Your task to perform on an android device: add a label to a message in the gmail app Image 0: 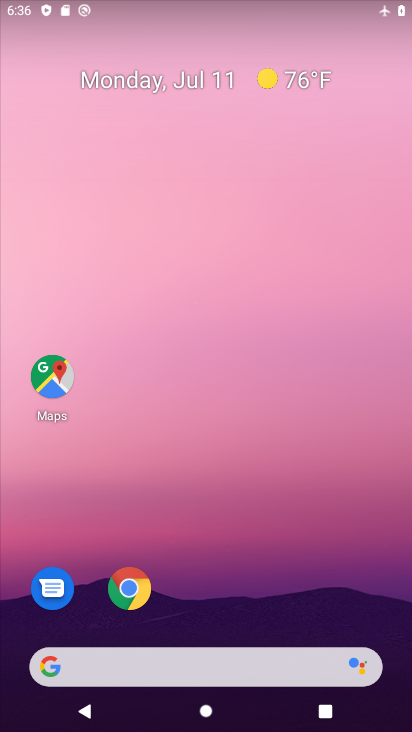
Step 0: drag from (244, 585) to (171, 105)
Your task to perform on an android device: add a label to a message in the gmail app Image 1: 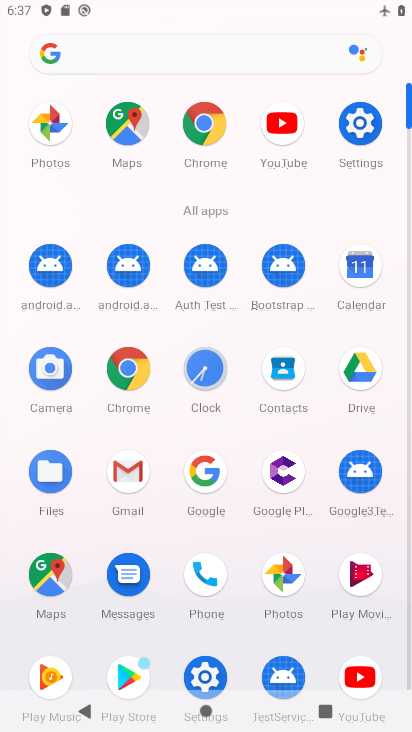
Step 1: click (124, 463)
Your task to perform on an android device: add a label to a message in the gmail app Image 2: 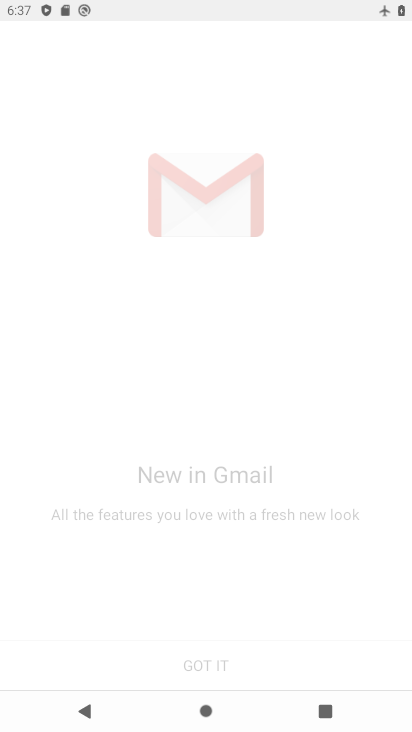
Step 2: click (124, 463)
Your task to perform on an android device: add a label to a message in the gmail app Image 3: 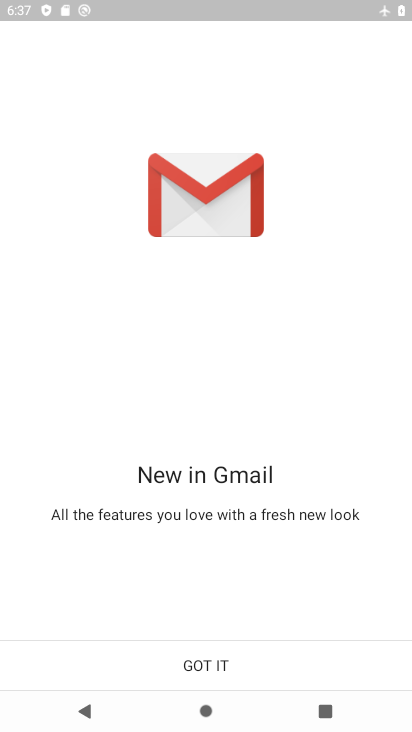
Step 3: click (214, 664)
Your task to perform on an android device: add a label to a message in the gmail app Image 4: 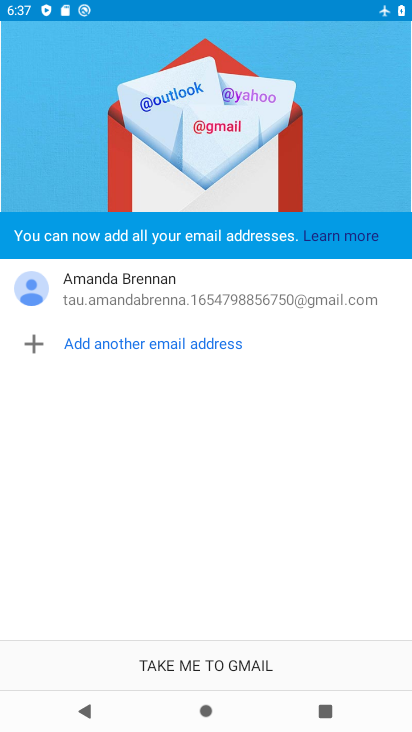
Step 4: click (210, 664)
Your task to perform on an android device: add a label to a message in the gmail app Image 5: 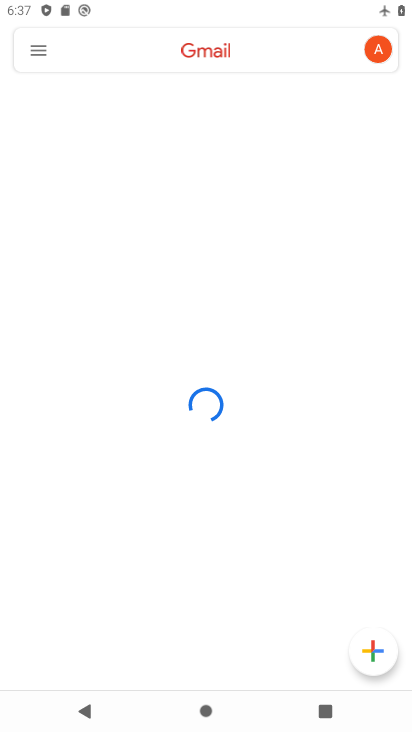
Step 5: click (42, 52)
Your task to perform on an android device: add a label to a message in the gmail app Image 6: 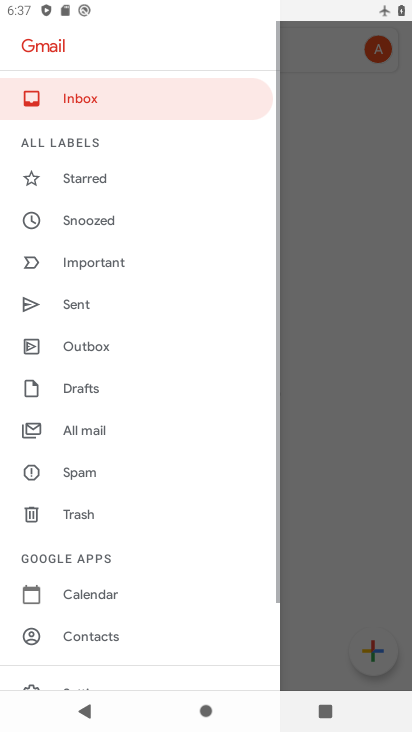
Step 6: click (88, 221)
Your task to perform on an android device: add a label to a message in the gmail app Image 7: 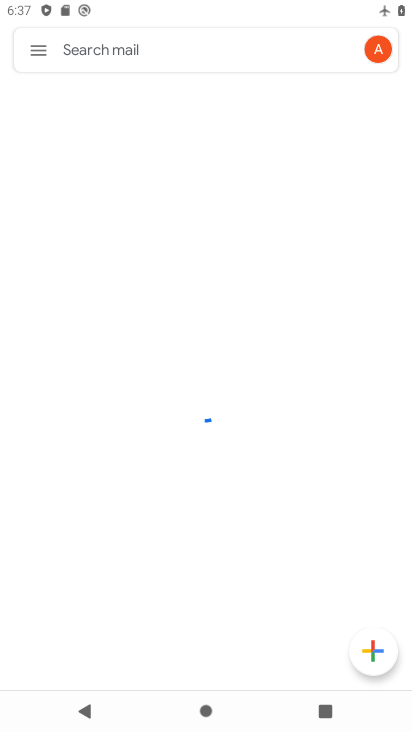
Step 7: click (41, 44)
Your task to perform on an android device: add a label to a message in the gmail app Image 8: 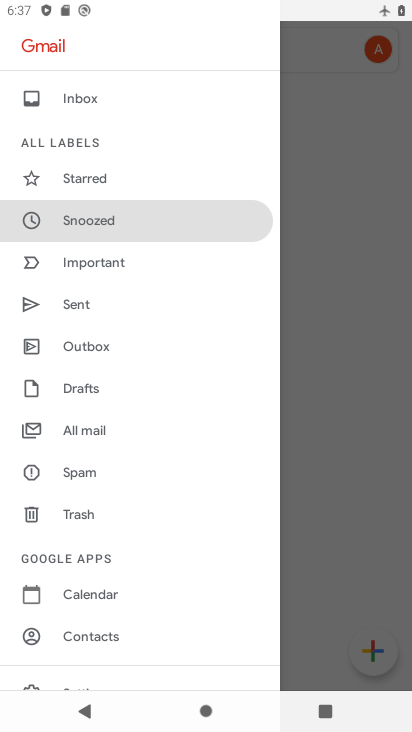
Step 8: drag from (131, 569) to (85, 249)
Your task to perform on an android device: add a label to a message in the gmail app Image 9: 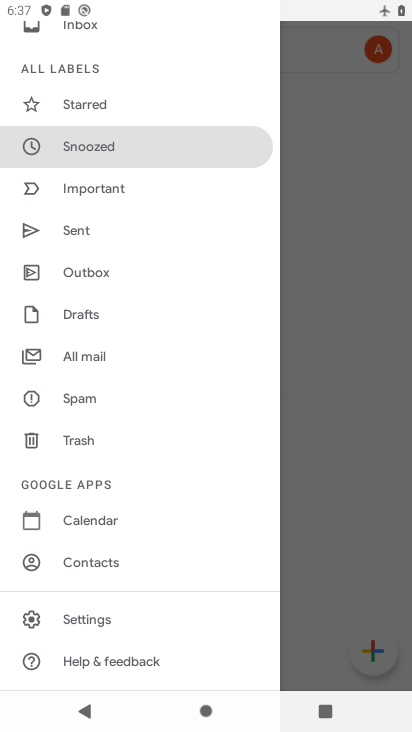
Step 9: click (84, 616)
Your task to perform on an android device: add a label to a message in the gmail app Image 10: 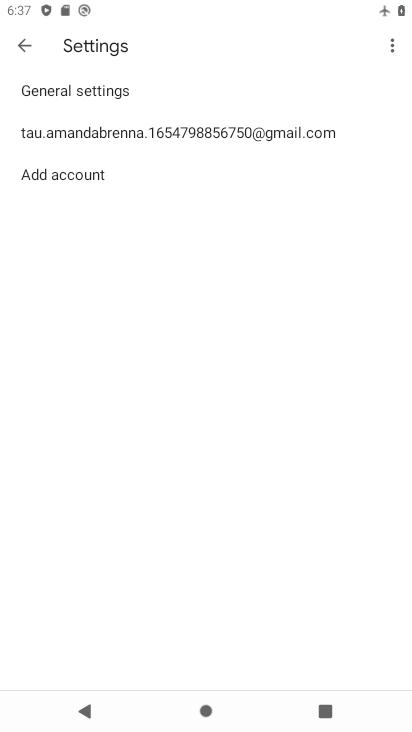
Step 10: click (76, 90)
Your task to perform on an android device: add a label to a message in the gmail app Image 11: 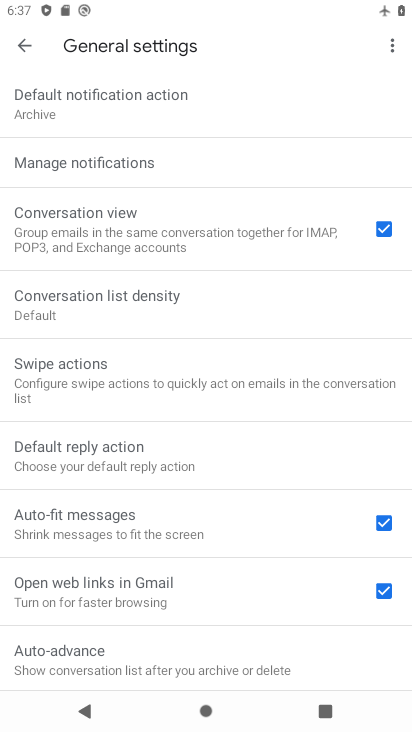
Step 11: task complete